Your task to perform on an android device: change notifications settings Image 0: 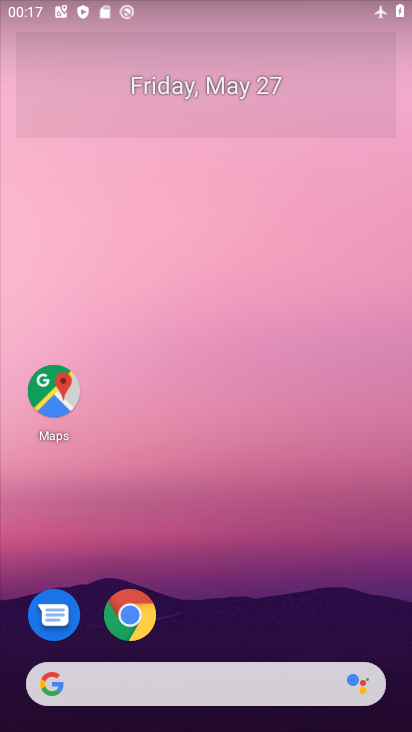
Step 0: drag from (347, 622) to (387, 260)
Your task to perform on an android device: change notifications settings Image 1: 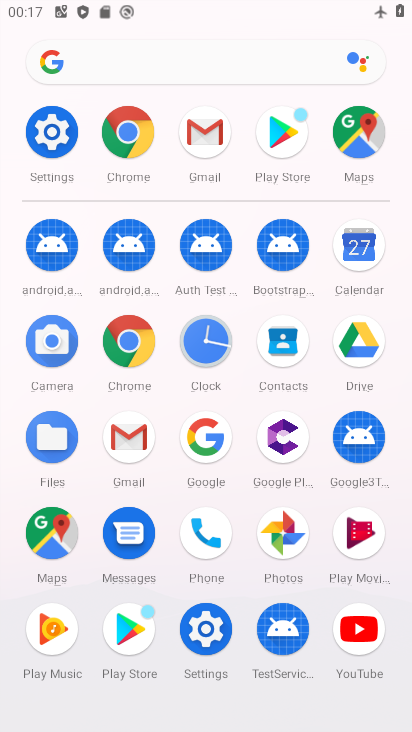
Step 1: click (64, 145)
Your task to perform on an android device: change notifications settings Image 2: 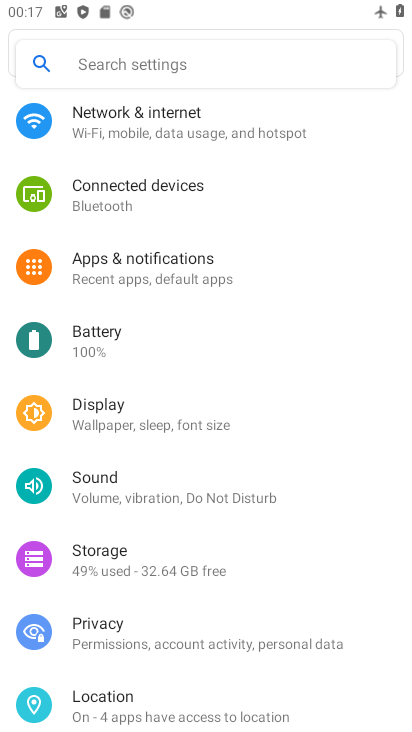
Step 2: click (152, 268)
Your task to perform on an android device: change notifications settings Image 3: 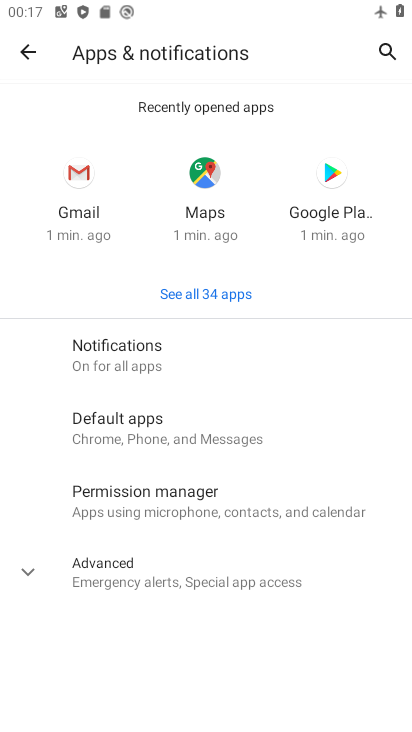
Step 3: click (140, 364)
Your task to perform on an android device: change notifications settings Image 4: 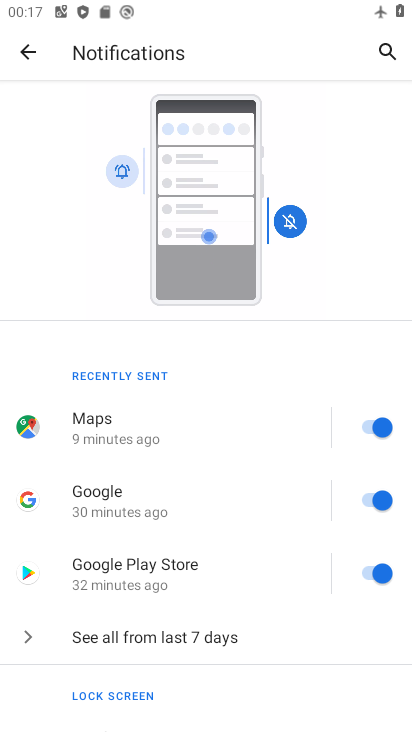
Step 4: drag from (201, 454) to (229, 326)
Your task to perform on an android device: change notifications settings Image 5: 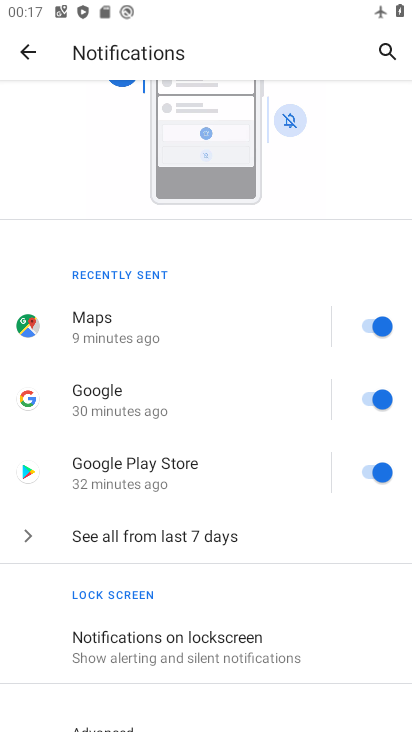
Step 5: drag from (239, 469) to (250, 347)
Your task to perform on an android device: change notifications settings Image 6: 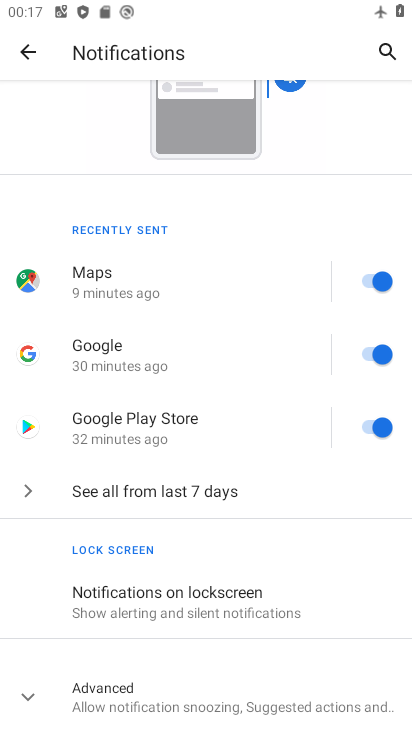
Step 6: click (379, 280)
Your task to perform on an android device: change notifications settings Image 7: 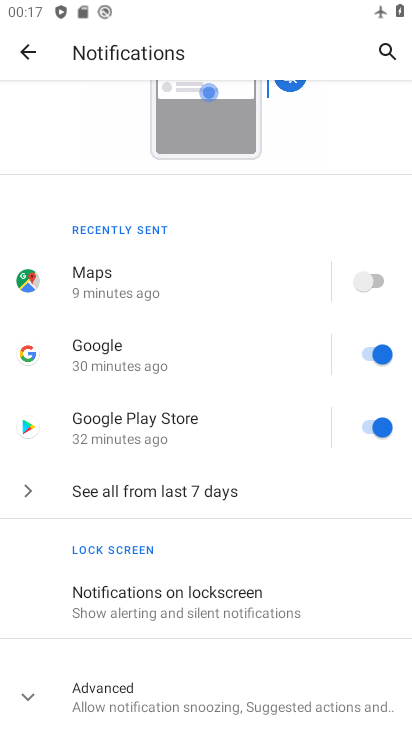
Step 7: click (379, 358)
Your task to perform on an android device: change notifications settings Image 8: 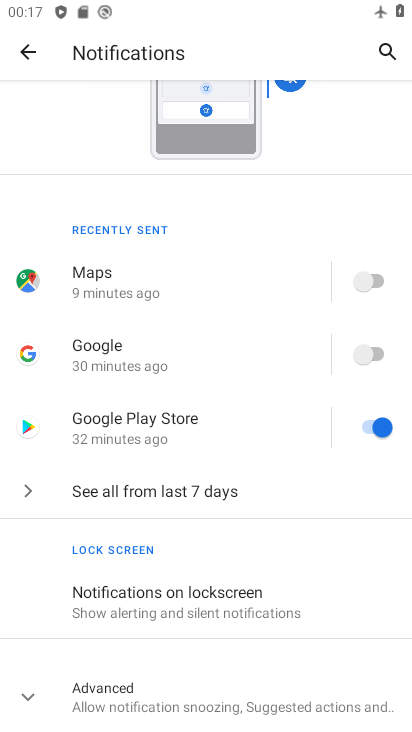
Step 8: click (372, 433)
Your task to perform on an android device: change notifications settings Image 9: 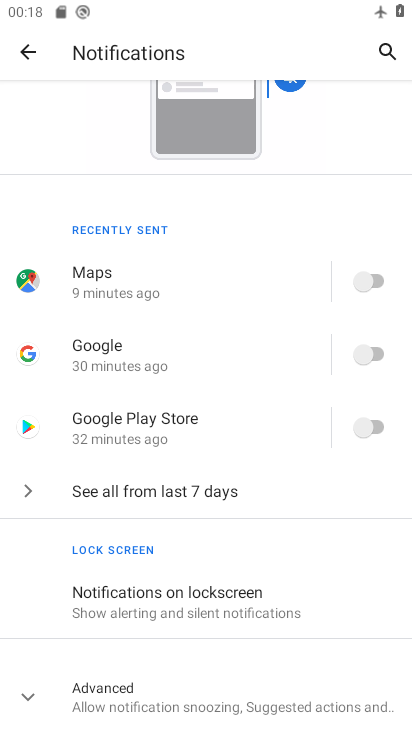
Step 9: task complete